Your task to perform on an android device: turn off notifications settings in the gmail app Image 0: 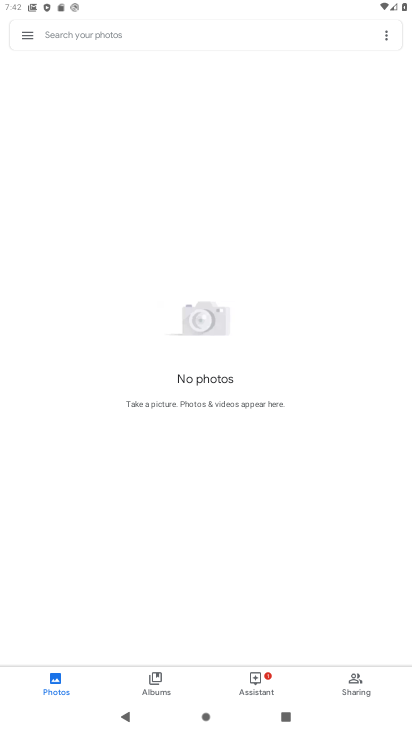
Step 0: press home button
Your task to perform on an android device: turn off notifications settings in the gmail app Image 1: 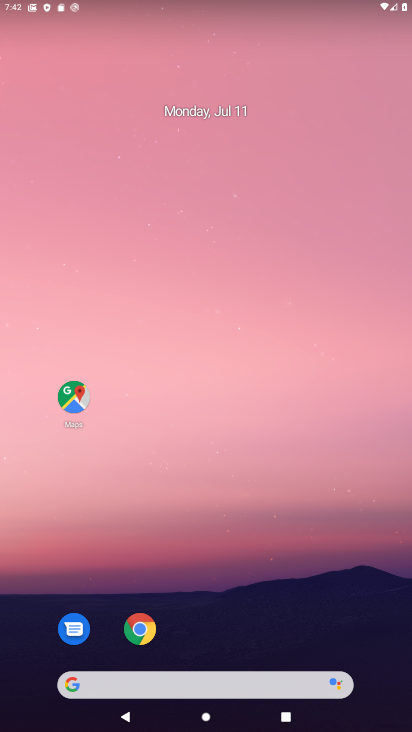
Step 1: drag from (199, 634) to (111, 71)
Your task to perform on an android device: turn off notifications settings in the gmail app Image 2: 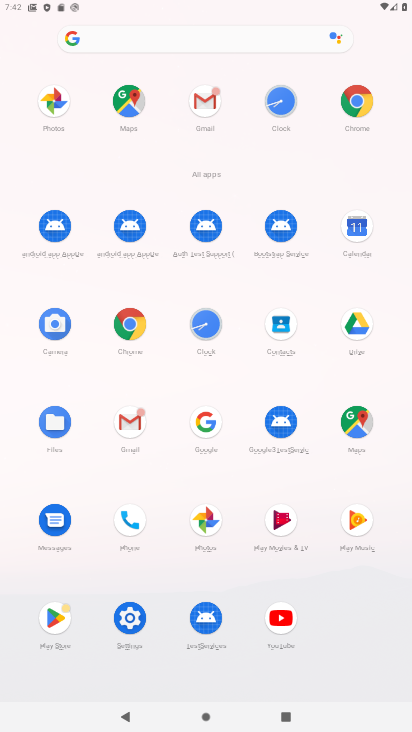
Step 2: click (138, 417)
Your task to perform on an android device: turn off notifications settings in the gmail app Image 3: 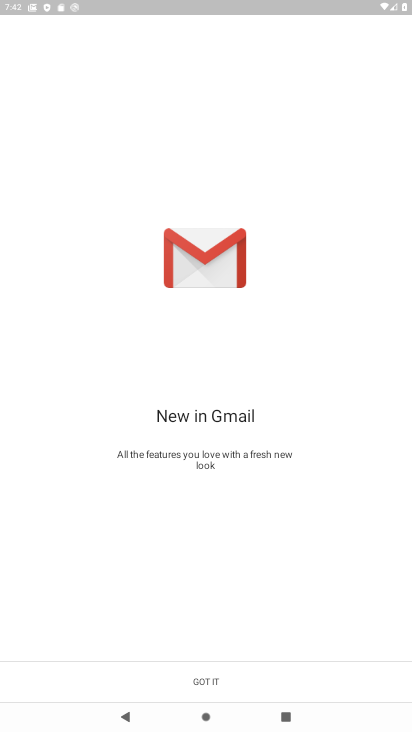
Step 3: click (214, 678)
Your task to perform on an android device: turn off notifications settings in the gmail app Image 4: 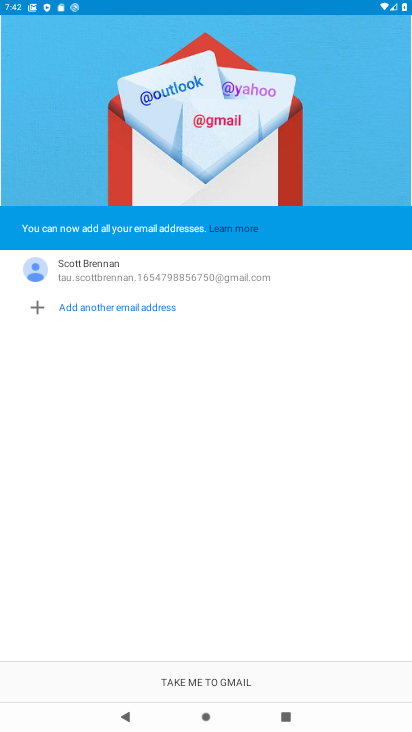
Step 4: click (226, 688)
Your task to perform on an android device: turn off notifications settings in the gmail app Image 5: 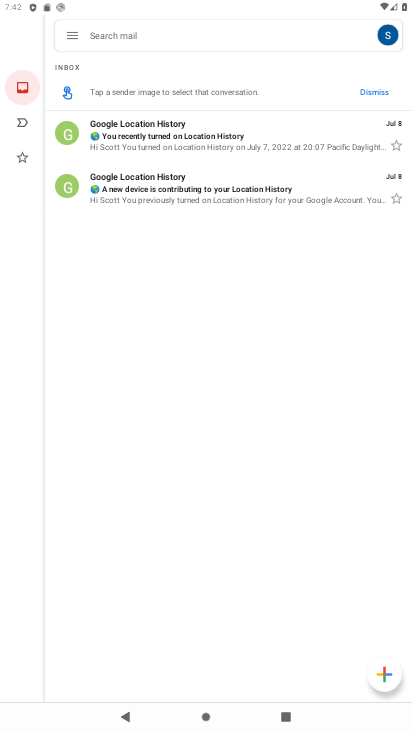
Step 5: click (63, 42)
Your task to perform on an android device: turn off notifications settings in the gmail app Image 6: 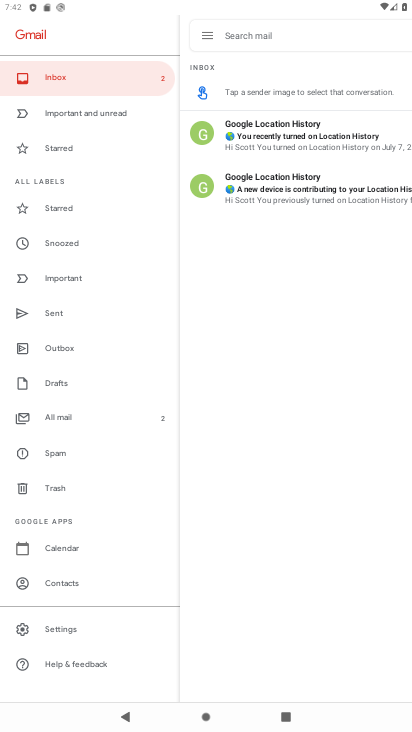
Step 6: click (43, 617)
Your task to perform on an android device: turn off notifications settings in the gmail app Image 7: 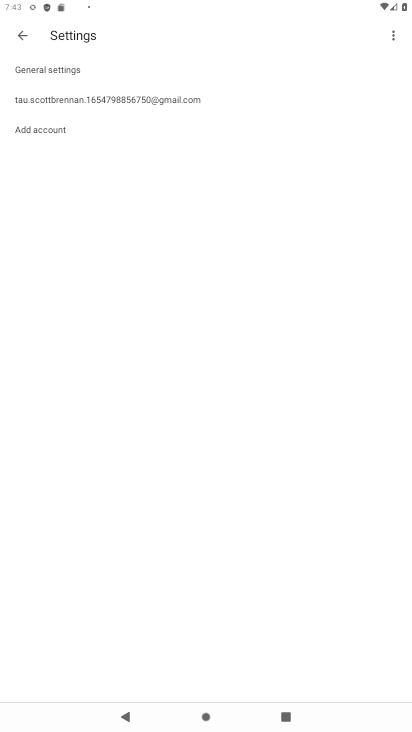
Step 7: click (31, 75)
Your task to perform on an android device: turn off notifications settings in the gmail app Image 8: 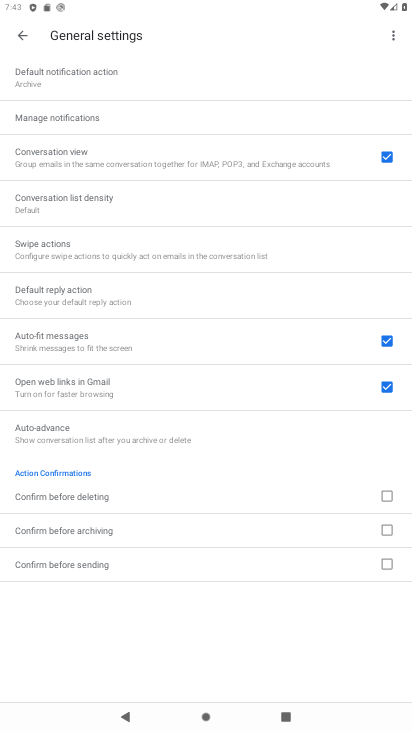
Step 8: click (64, 115)
Your task to perform on an android device: turn off notifications settings in the gmail app Image 9: 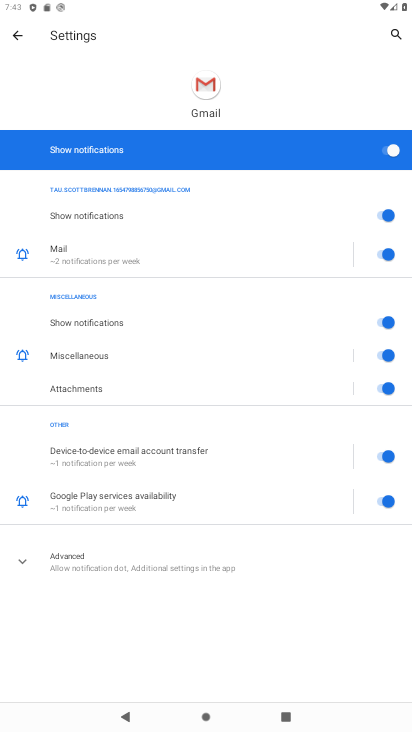
Step 9: click (394, 150)
Your task to perform on an android device: turn off notifications settings in the gmail app Image 10: 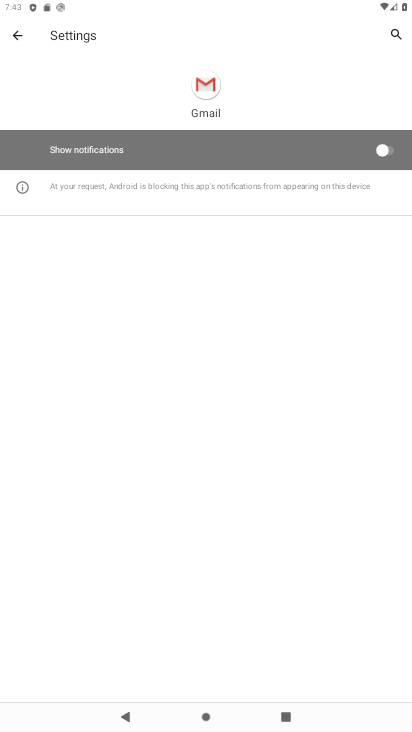
Step 10: task complete